Your task to perform on an android device: Clear all items from cart on ebay. Image 0: 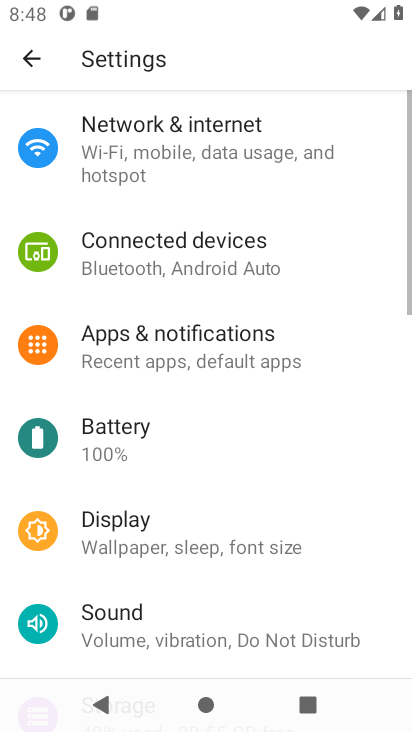
Step 0: press home button
Your task to perform on an android device: Clear all items from cart on ebay. Image 1: 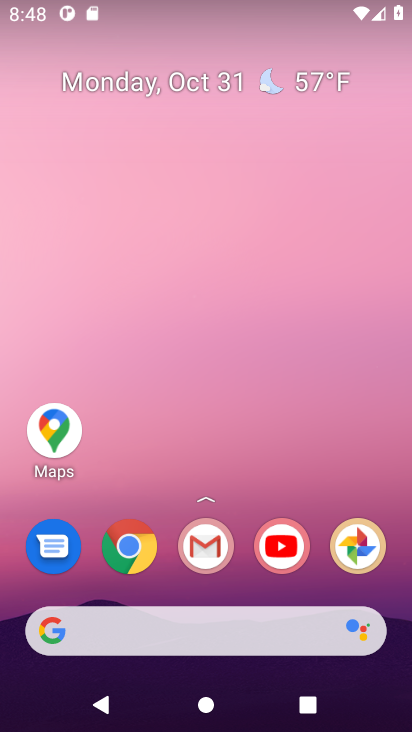
Step 1: click (129, 548)
Your task to perform on an android device: Clear all items from cart on ebay. Image 2: 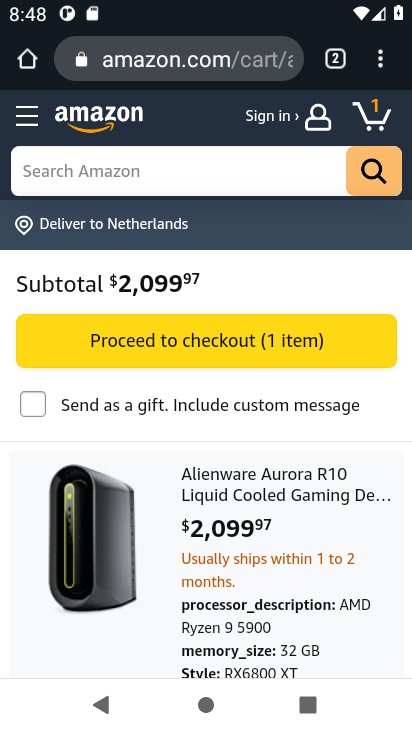
Step 2: click (151, 44)
Your task to perform on an android device: Clear all items from cart on ebay. Image 3: 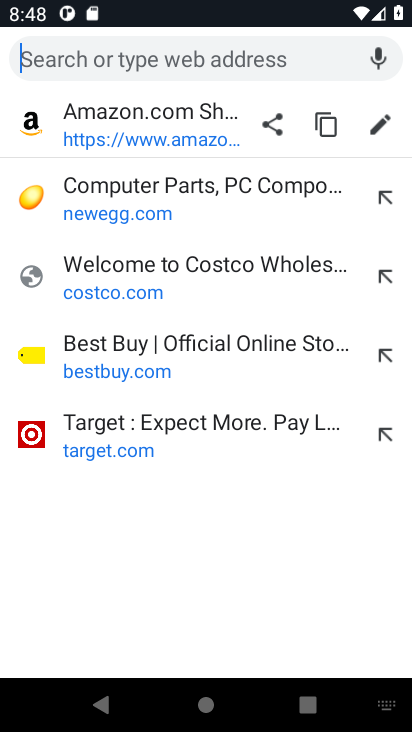
Step 3: type "ebay"
Your task to perform on an android device: Clear all items from cart on ebay. Image 4: 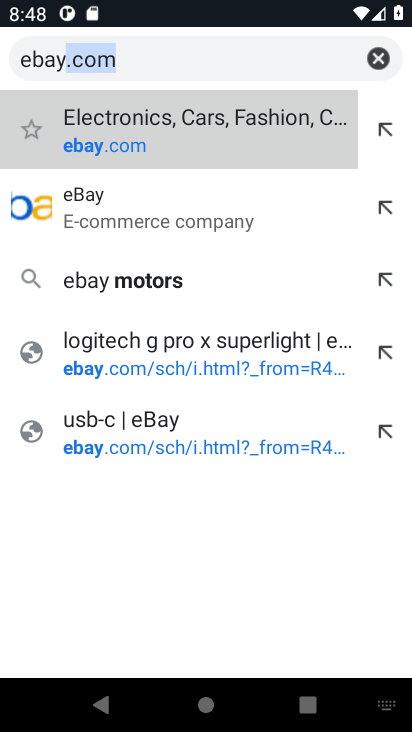
Step 4: click (85, 140)
Your task to perform on an android device: Clear all items from cart on ebay. Image 5: 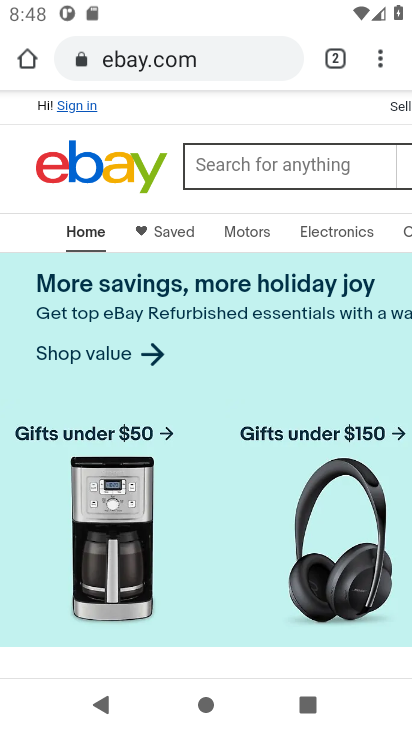
Step 5: click (258, 162)
Your task to perform on an android device: Clear all items from cart on ebay. Image 6: 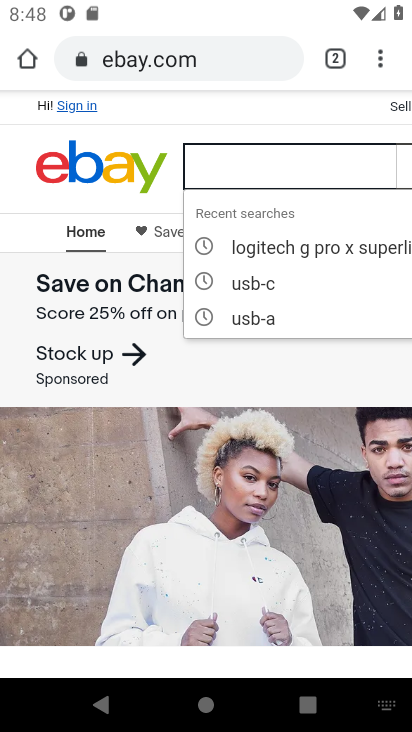
Step 6: click (137, 182)
Your task to perform on an android device: Clear all items from cart on ebay. Image 7: 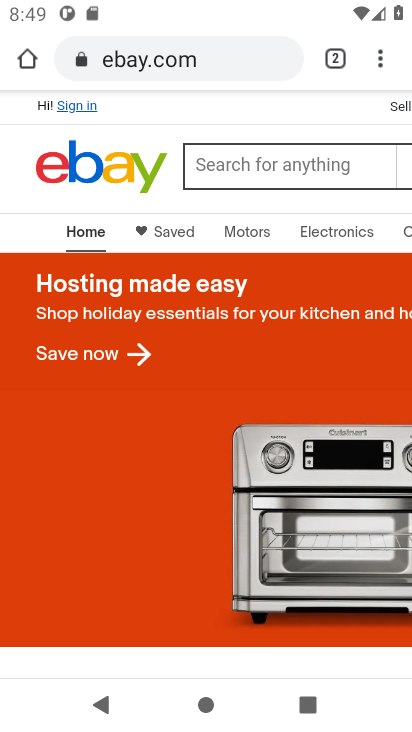
Step 7: drag from (379, 123) to (27, 163)
Your task to perform on an android device: Clear all items from cart on ebay. Image 8: 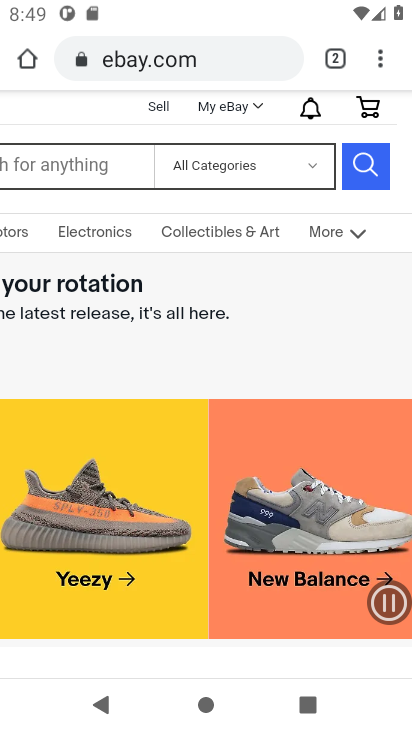
Step 8: click (370, 105)
Your task to perform on an android device: Clear all items from cart on ebay. Image 9: 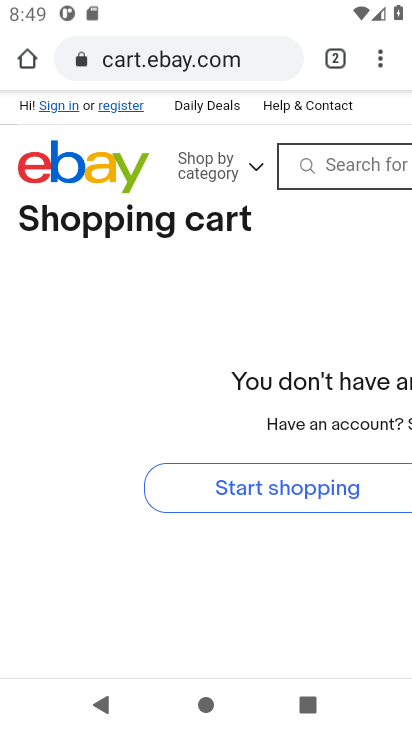
Step 9: task complete